Your task to perform on an android device: delete browsing data in the chrome app Image 0: 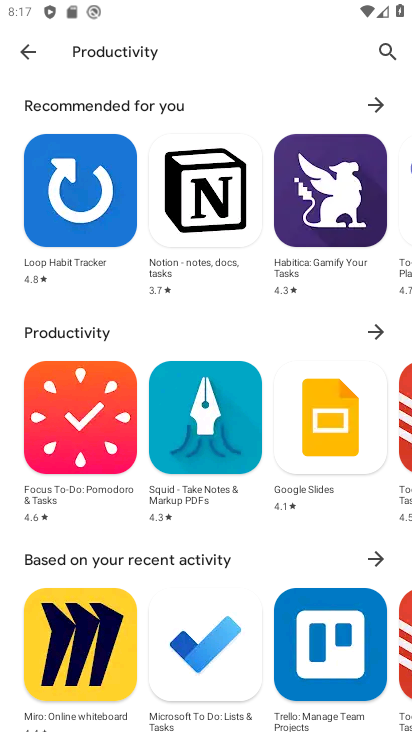
Step 0: press home button
Your task to perform on an android device: delete browsing data in the chrome app Image 1: 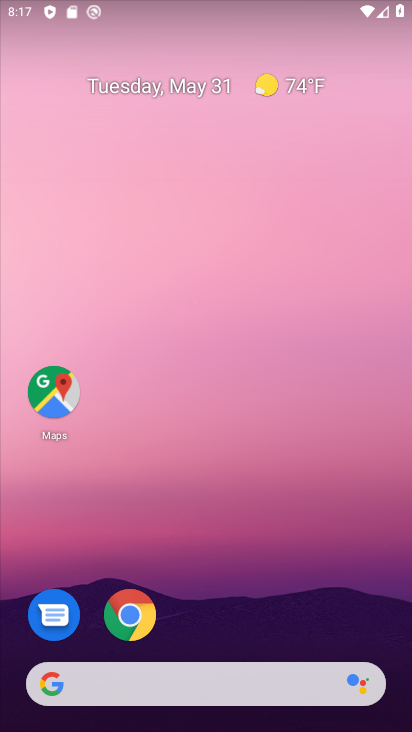
Step 1: click (128, 592)
Your task to perform on an android device: delete browsing data in the chrome app Image 2: 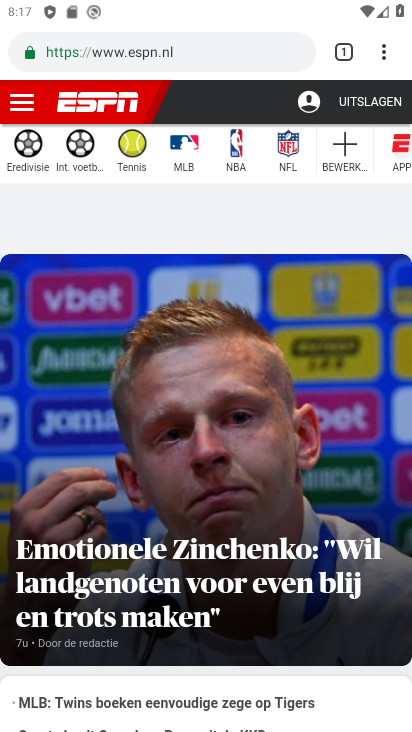
Step 2: drag from (379, 54) to (176, 276)
Your task to perform on an android device: delete browsing data in the chrome app Image 3: 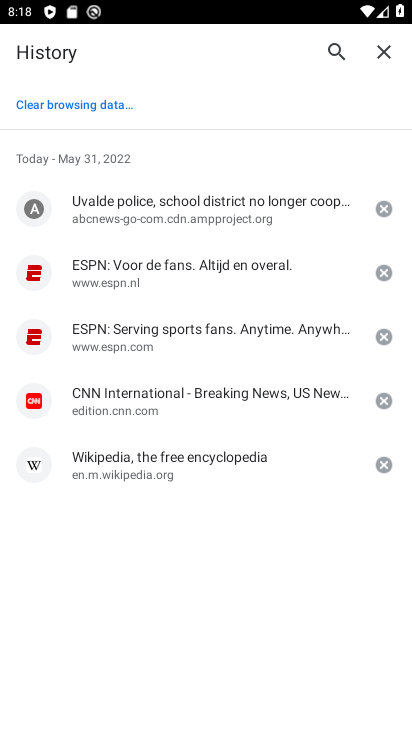
Step 3: click (118, 102)
Your task to perform on an android device: delete browsing data in the chrome app Image 4: 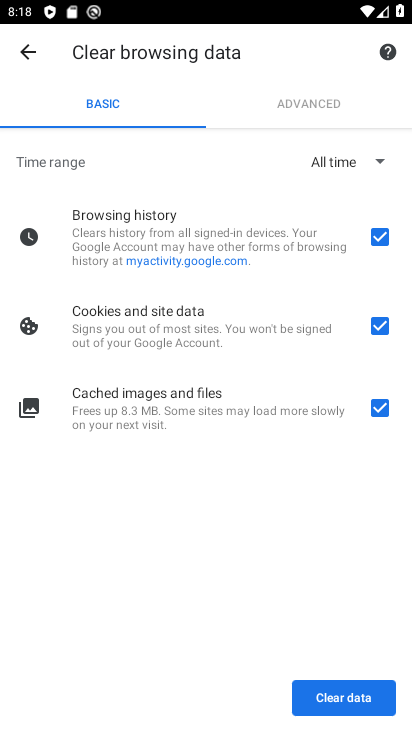
Step 4: click (345, 699)
Your task to perform on an android device: delete browsing data in the chrome app Image 5: 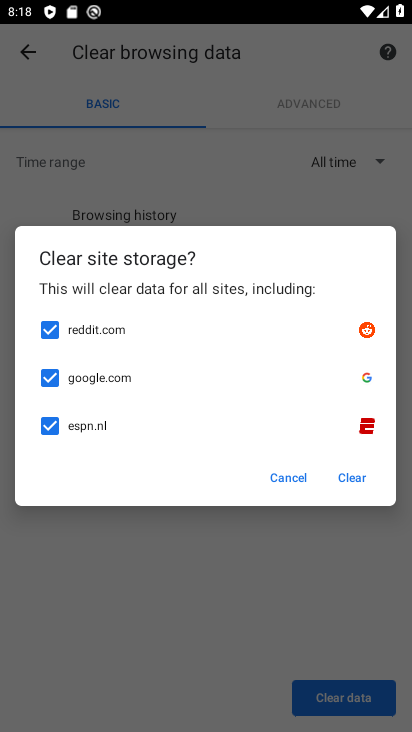
Step 5: click (343, 485)
Your task to perform on an android device: delete browsing data in the chrome app Image 6: 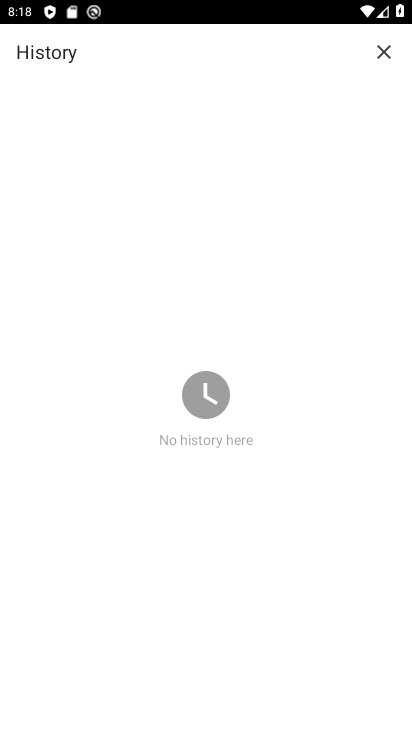
Step 6: task complete